Your task to perform on an android device: Open ESPN.com Image 0: 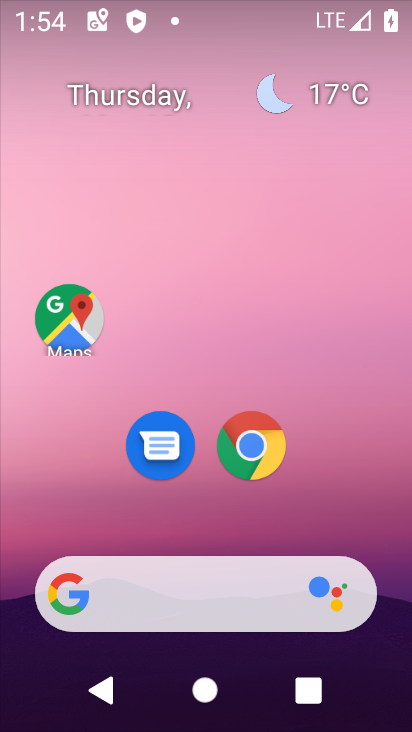
Step 0: click (247, 456)
Your task to perform on an android device: Open ESPN.com Image 1: 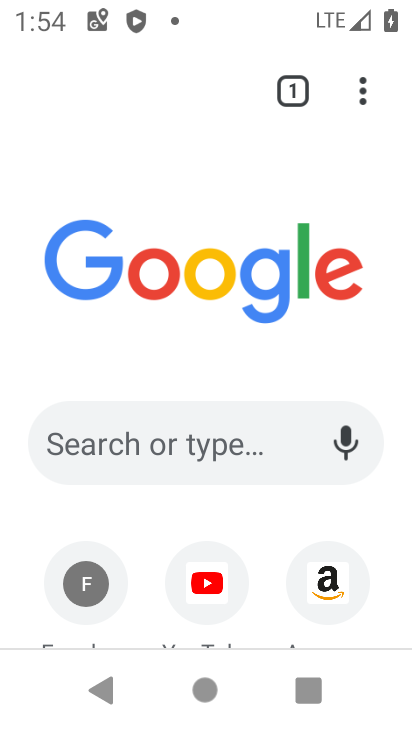
Step 1: drag from (247, 501) to (159, 31)
Your task to perform on an android device: Open ESPN.com Image 2: 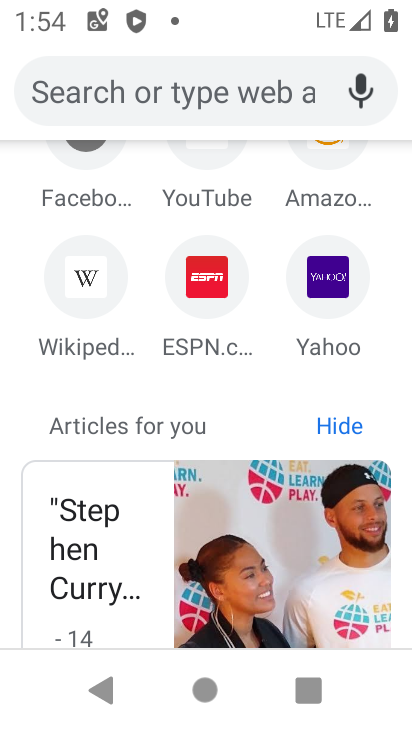
Step 2: click (205, 294)
Your task to perform on an android device: Open ESPN.com Image 3: 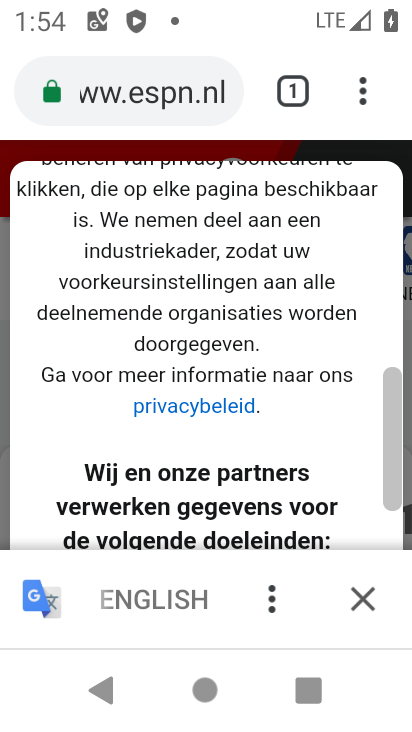
Step 3: task complete